Your task to perform on an android device: turn on the 24-hour format for clock Image 0: 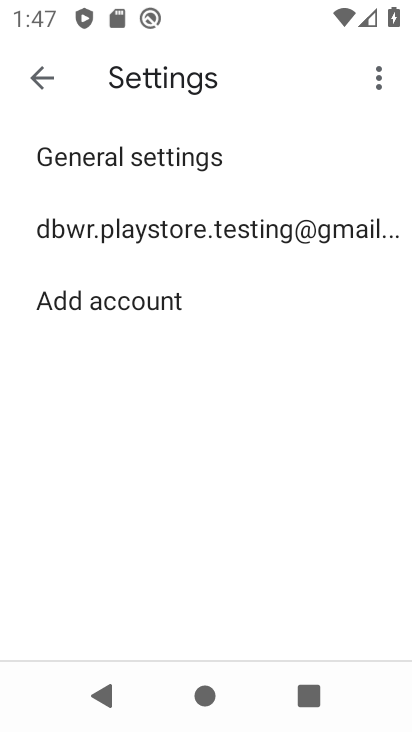
Step 0: press home button
Your task to perform on an android device: turn on the 24-hour format for clock Image 1: 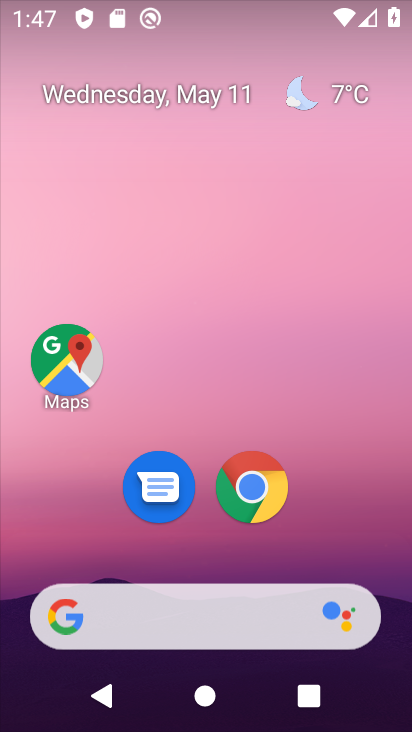
Step 1: drag from (160, 577) to (254, 45)
Your task to perform on an android device: turn on the 24-hour format for clock Image 2: 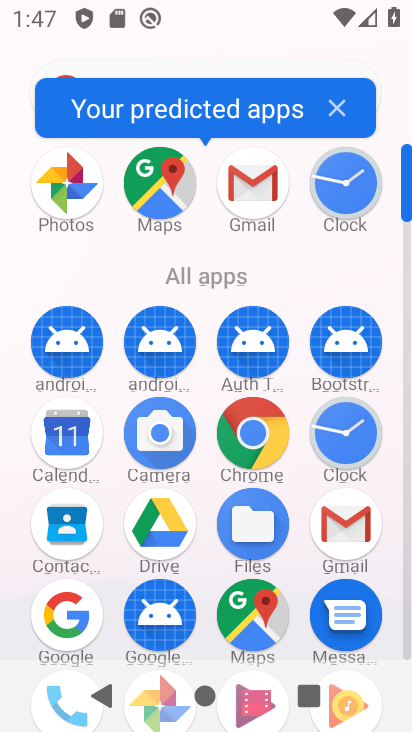
Step 2: click (349, 438)
Your task to perform on an android device: turn on the 24-hour format for clock Image 3: 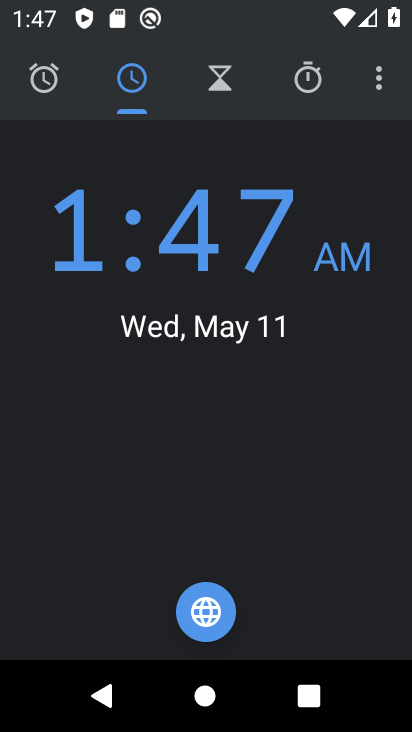
Step 3: click (381, 83)
Your task to perform on an android device: turn on the 24-hour format for clock Image 4: 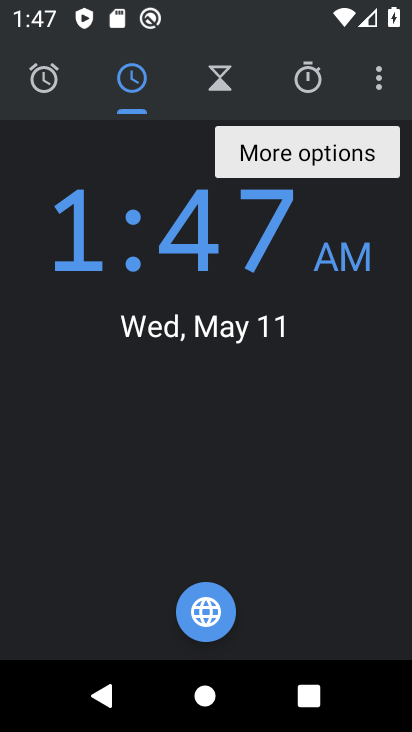
Step 4: click (369, 99)
Your task to perform on an android device: turn on the 24-hour format for clock Image 5: 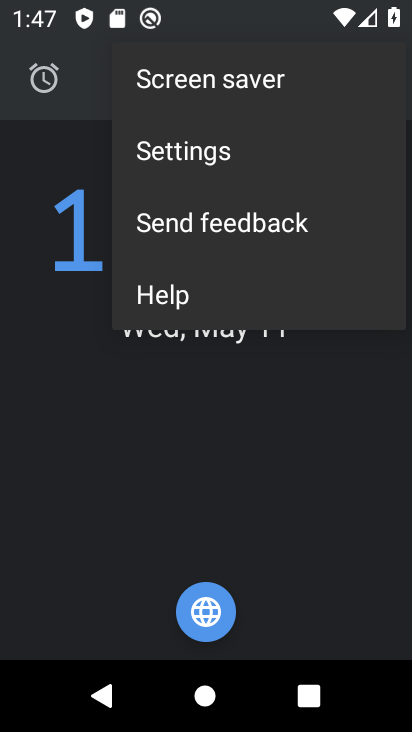
Step 5: click (305, 148)
Your task to perform on an android device: turn on the 24-hour format for clock Image 6: 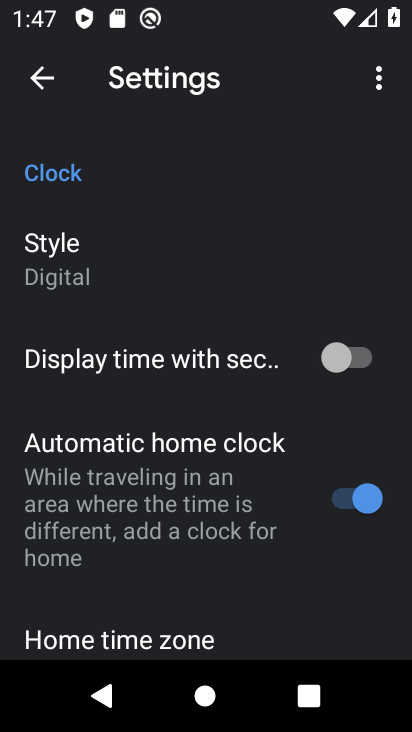
Step 6: drag from (250, 471) to (395, 122)
Your task to perform on an android device: turn on the 24-hour format for clock Image 7: 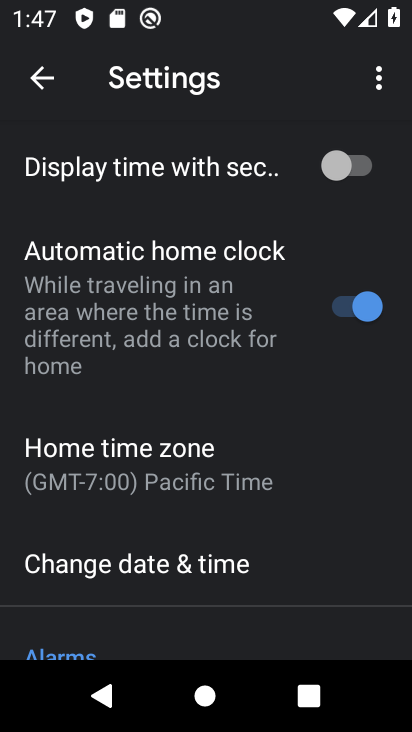
Step 7: click (228, 579)
Your task to perform on an android device: turn on the 24-hour format for clock Image 8: 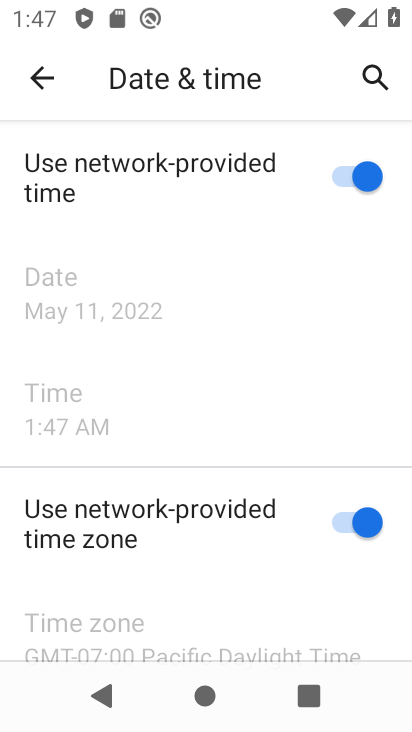
Step 8: drag from (126, 639) to (306, 130)
Your task to perform on an android device: turn on the 24-hour format for clock Image 9: 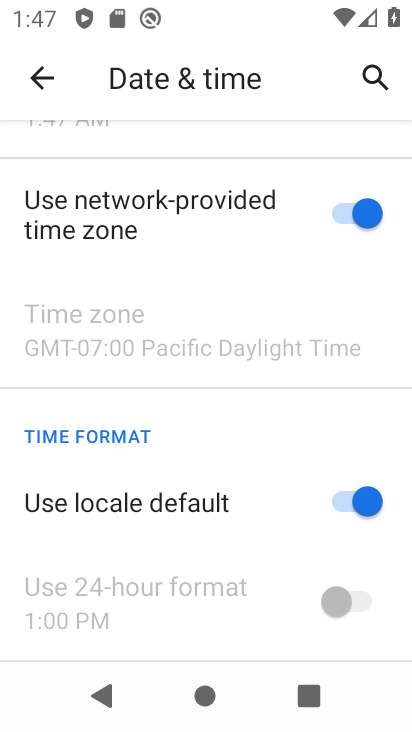
Step 9: click (361, 495)
Your task to perform on an android device: turn on the 24-hour format for clock Image 10: 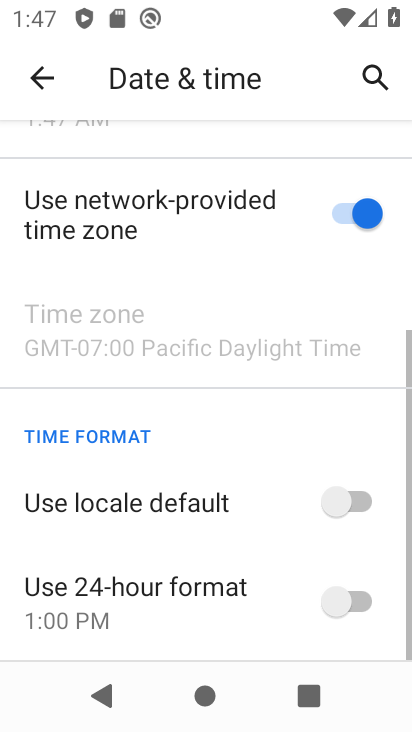
Step 10: click (364, 580)
Your task to perform on an android device: turn on the 24-hour format for clock Image 11: 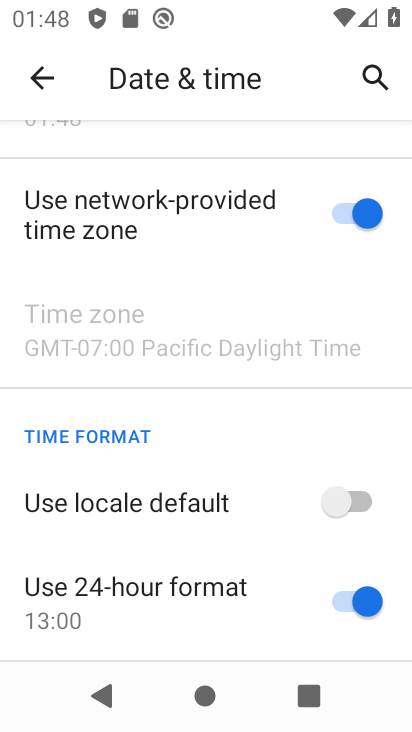
Step 11: task complete